Your task to perform on an android device: Go to wifi settings Image 0: 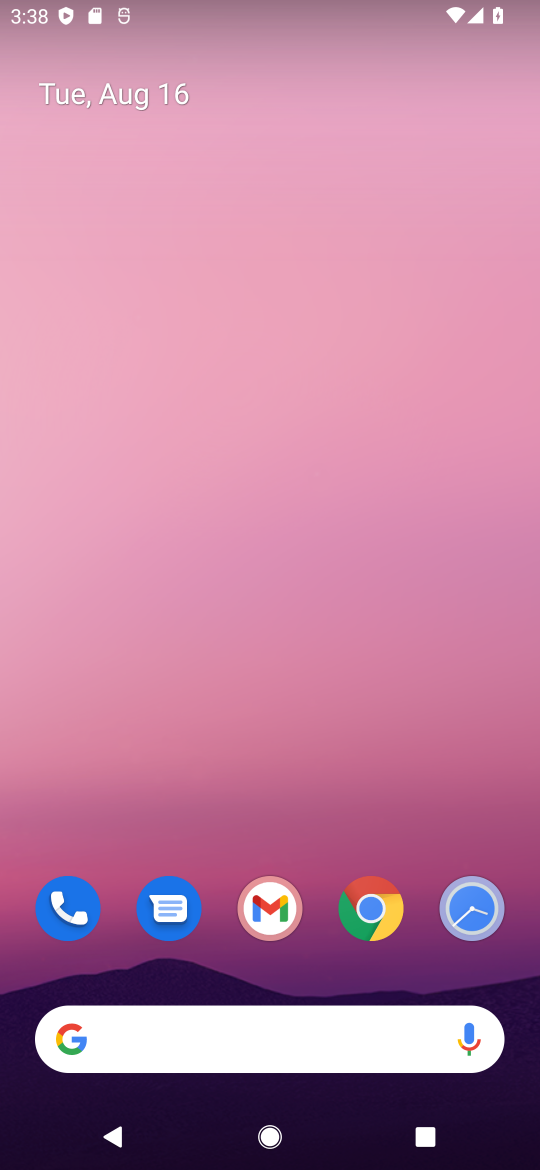
Step 0: press home button
Your task to perform on an android device: Go to wifi settings Image 1: 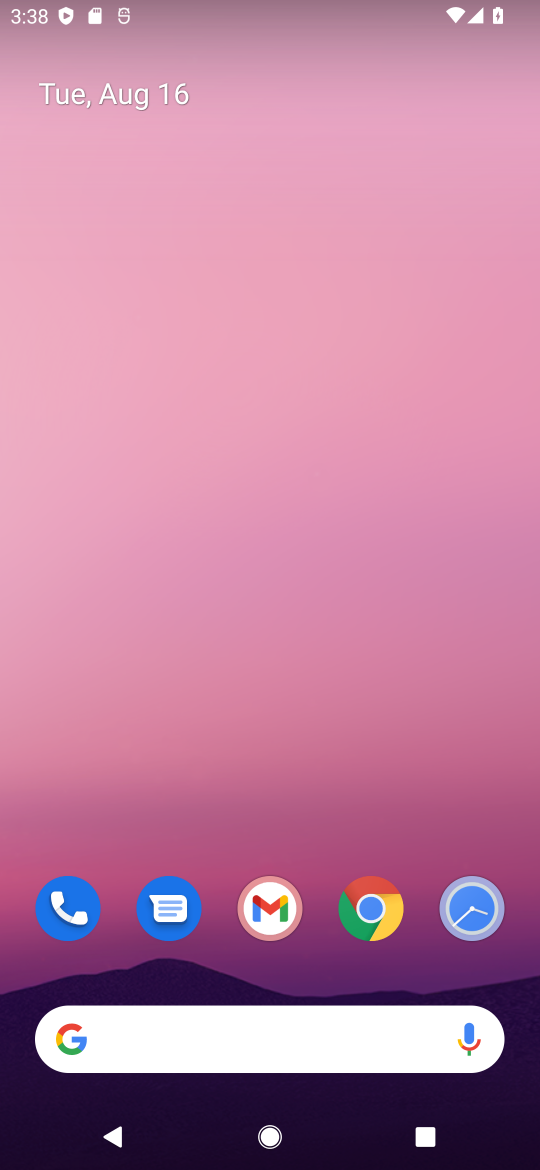
Step 1: drag from (311, 867) to (337, 0)
Your task to perform on an android device: Go to wifi settings Image 2: 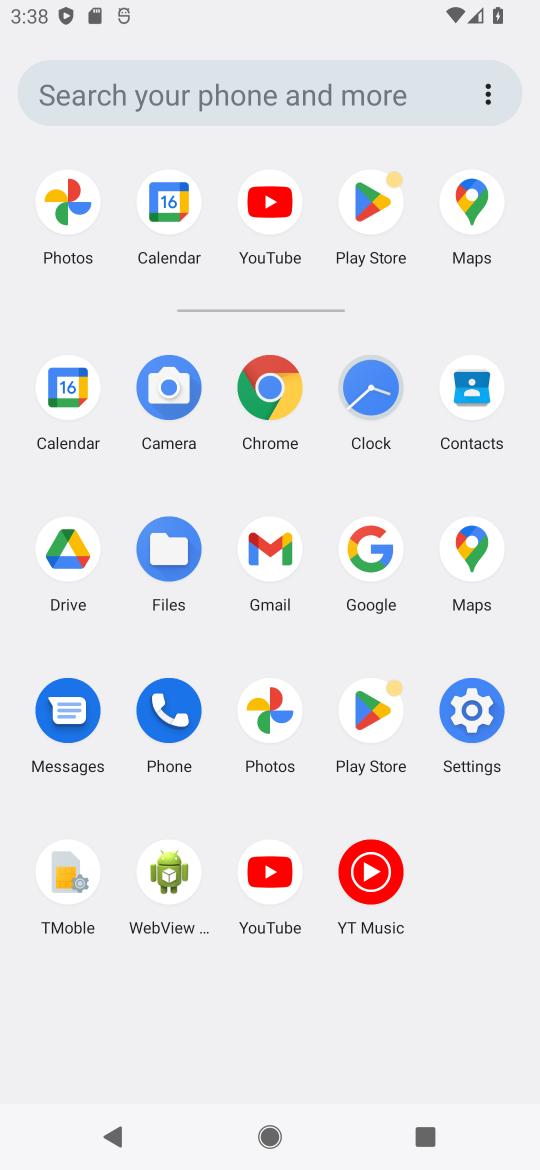
Step 2: click (472, 707)
Your task to perform on an android device: Go to wifi settings Image 3: 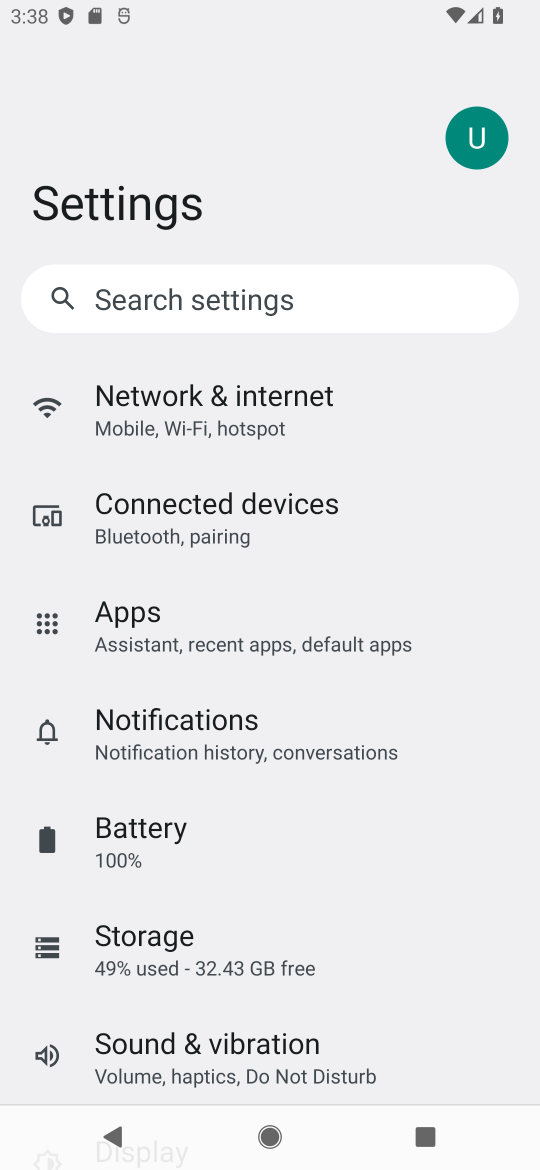
Step 3: click (277, 410)
Your task to perform on an android device: Go to wifi settings Image 4: 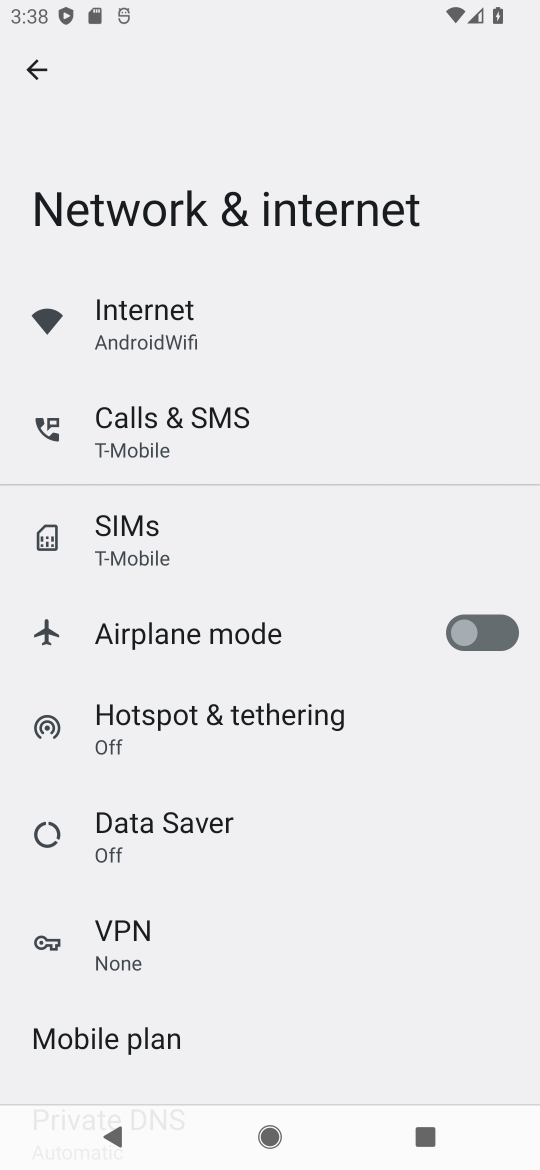
Step 4: click (203, 318)
Your task to perform on an android device: Go to wifi settings Image 5: 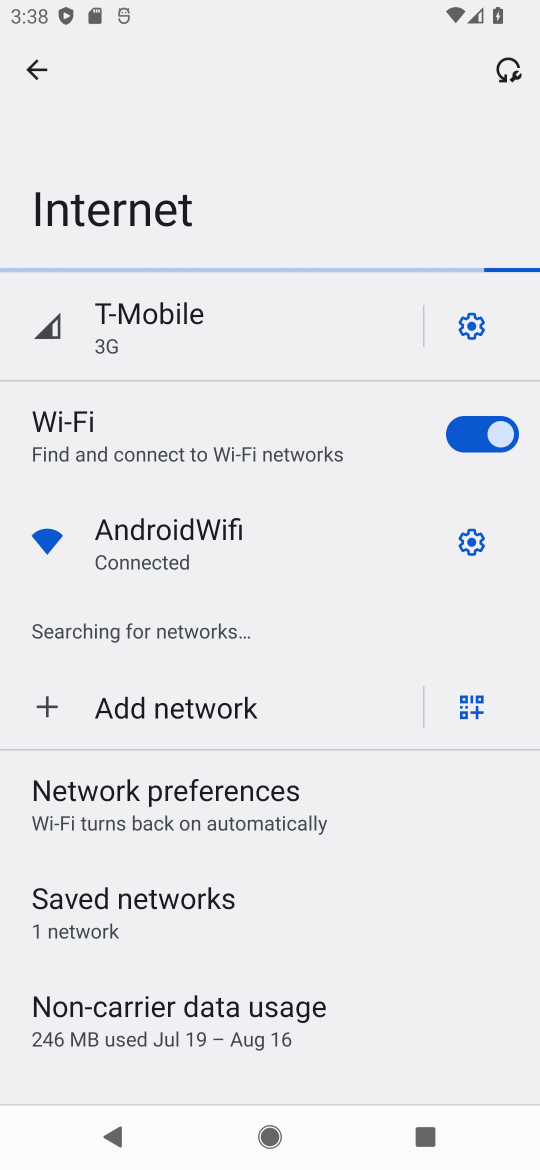
Step 5: task complete